Your task to perform on an android device: Search for Mexican restaurants on Maps Image 0: 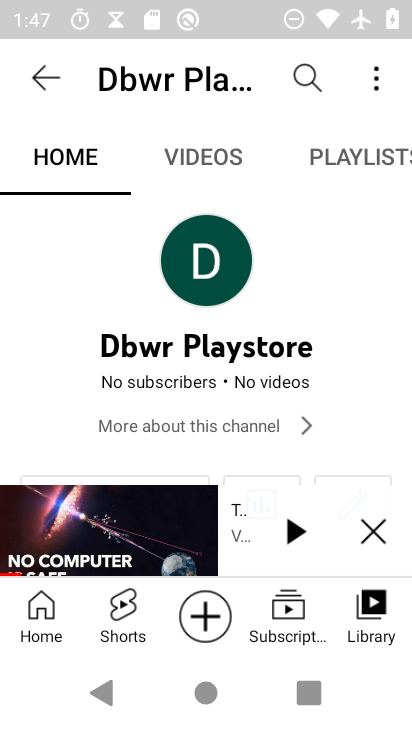
Step 0: press home button
Your task to perform on an android device: Search for Mexican restaurants on Maps Image 1: 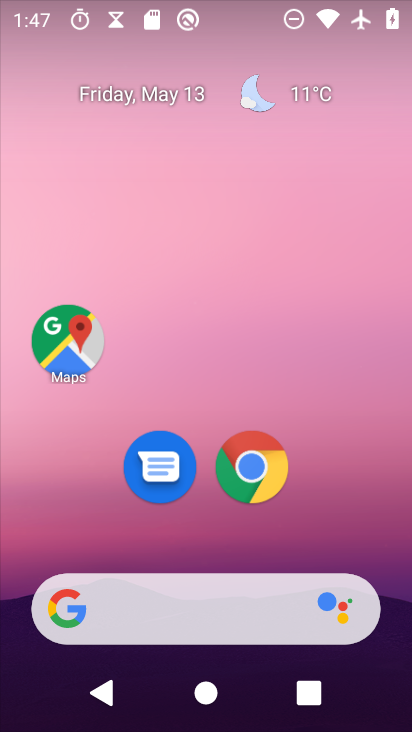
Step 1: click (68, 345)
Your task to perform on an android device: Search for Mexican restaurants on Maps Image 2: 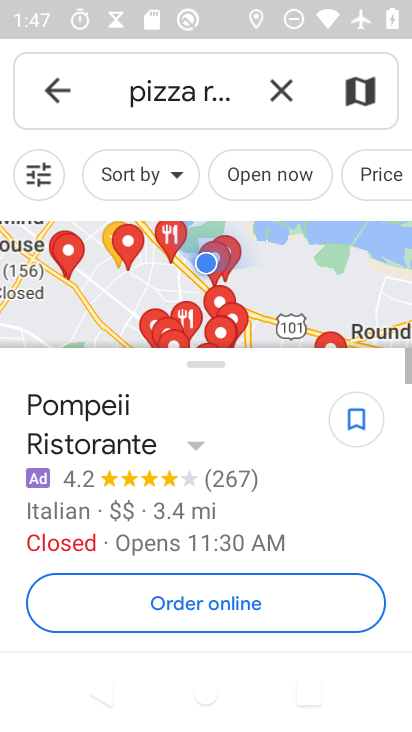
Step 2: click (288, 91)
Your task to perform on an android device: Search for Mexican restaurants on Maps Image 3: 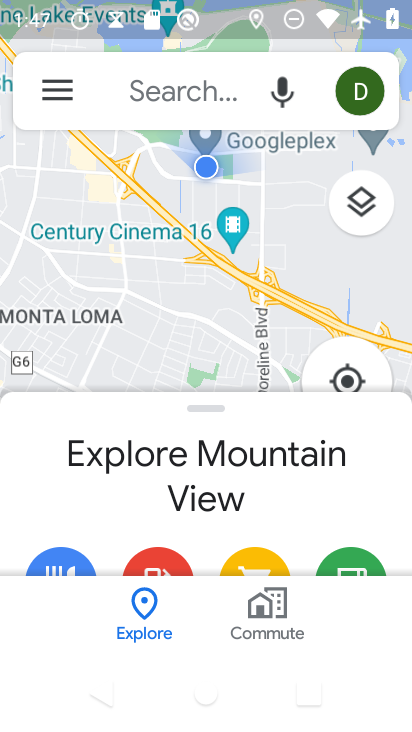
Step 3: click (194, 92)
Your task to perform on an android device: Search for Mexican restaurants on Maps Image 4: 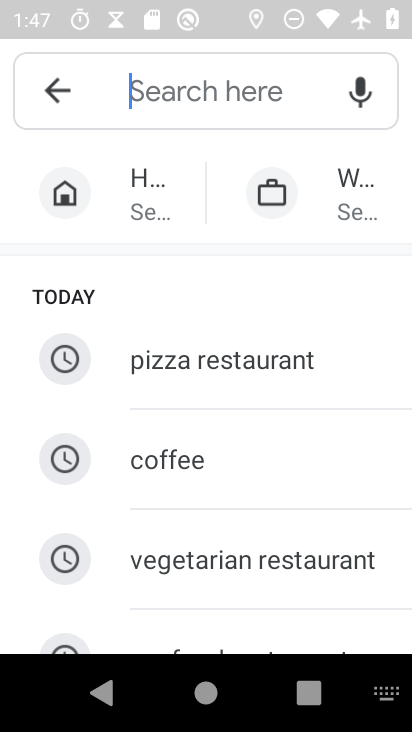
Step 4: drag from (231, 542) to (219, 224)
Your task to perform on an android device: Search for Mexican restaurants on Maps Image 5: 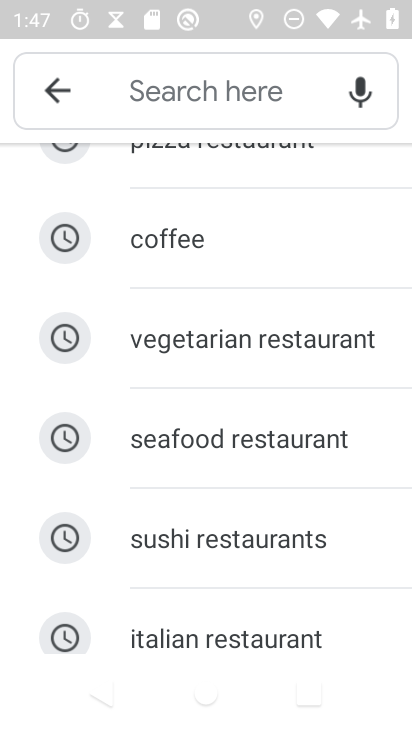
Step 5: drag from (208, 561) to (213, 286)
Your task to perform on an android device: Search for Mexican restaurants on Maps Image 6: 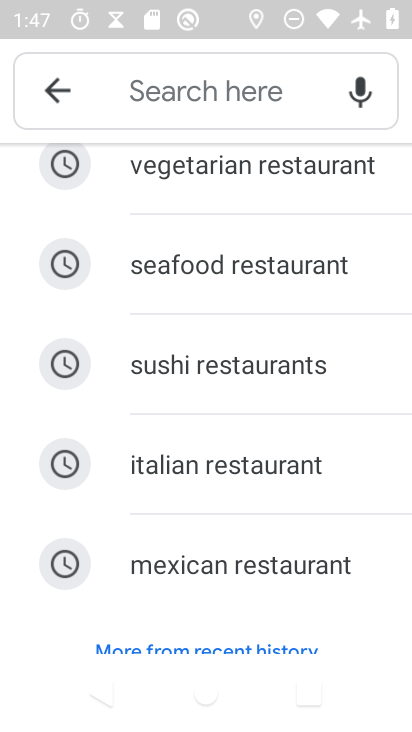
Step 6: click (187, 564)
Your task to perform on an android device: Search for Mexican restaurants on Maps Image 7: 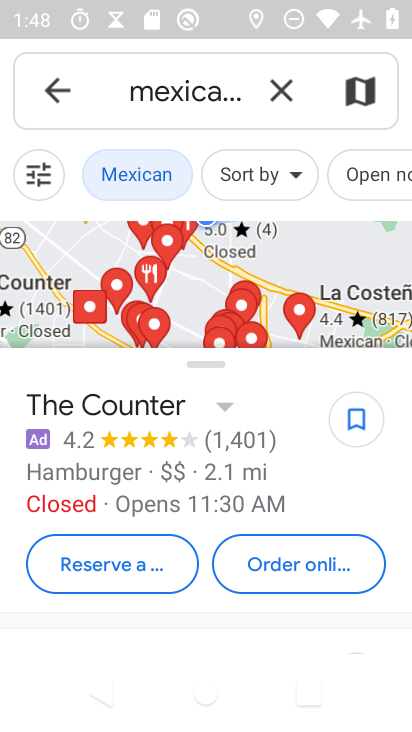
Step 7: task complete